Your task to perform on an android device: change text size in settings app Image 0: 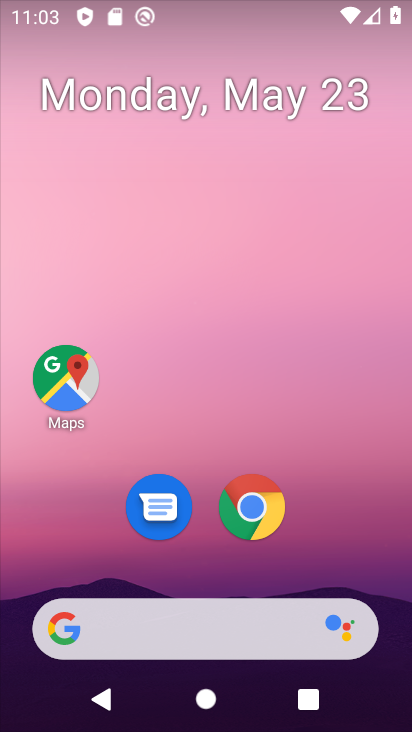
Step 0: drag from (342, 548) to (325, 188)
Your task to perform on an android device: change text size in settings app Image 1: 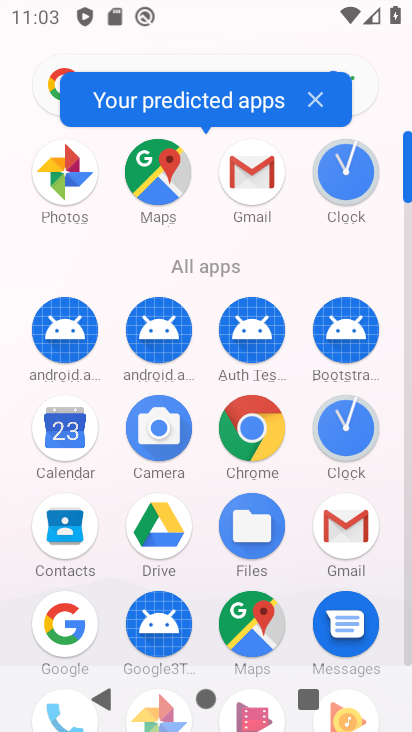
Step 1: drag from (270, 568) to (314, 140)
Your task to perform on an android device: change text size in settings app Image 2: 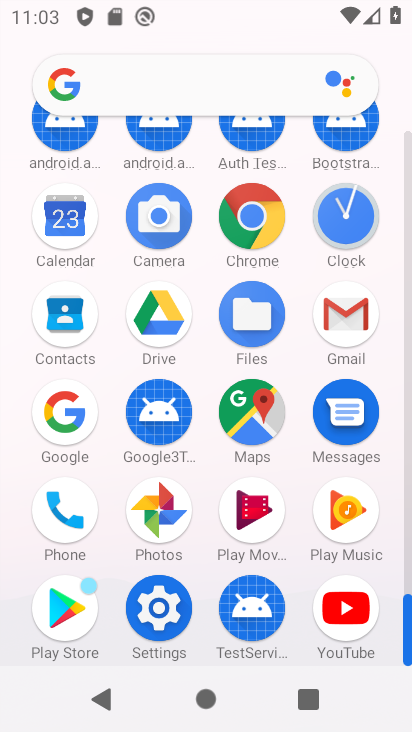
Step 2: drag from (229, 486) to (289, 211)
Your task to perform on an android device: change text size in settings app Image 3: 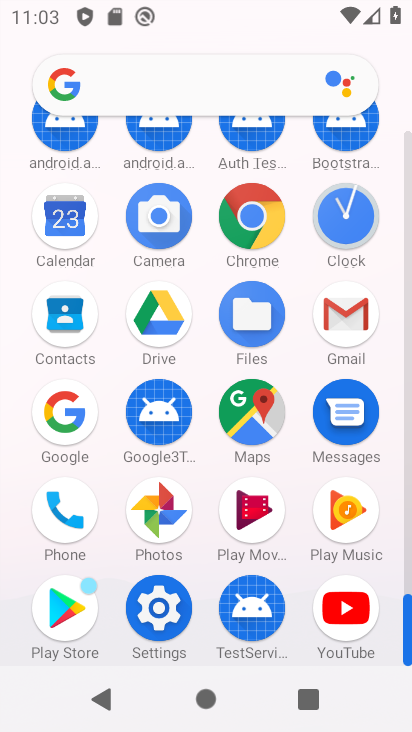
Step 3: click (153, 601)
Your task to perform on an android device: change text size in settings app Image 4: 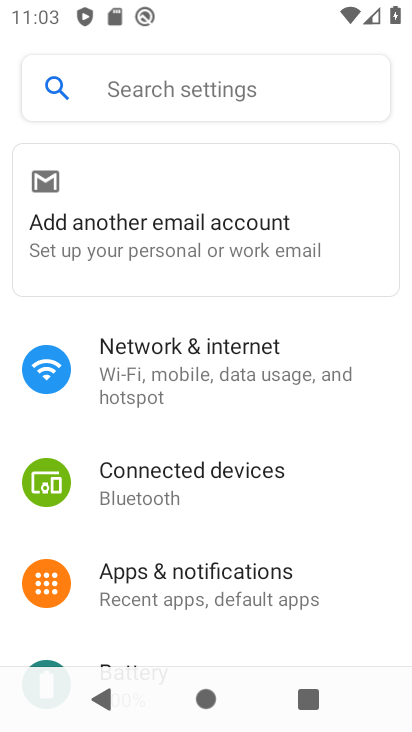
Step 4: drag from (239, 550) to (284, 212)
Your task to perform on an android device: change text size in settings app Image 5: 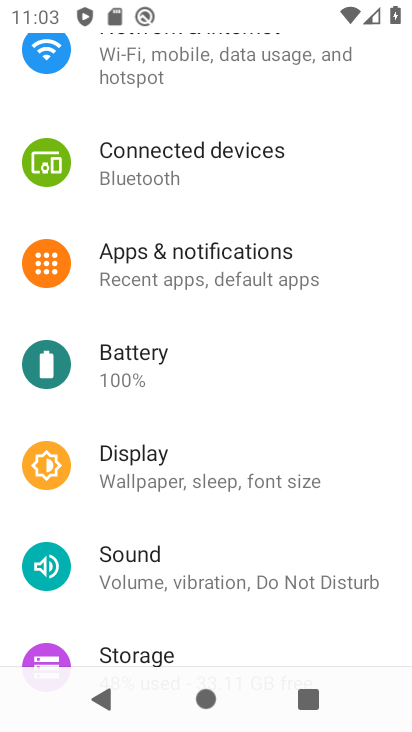
Step 5: drag from (256, 591) to (325, 232)
Your task to perform on an android device: change text size in settings app Image 6: 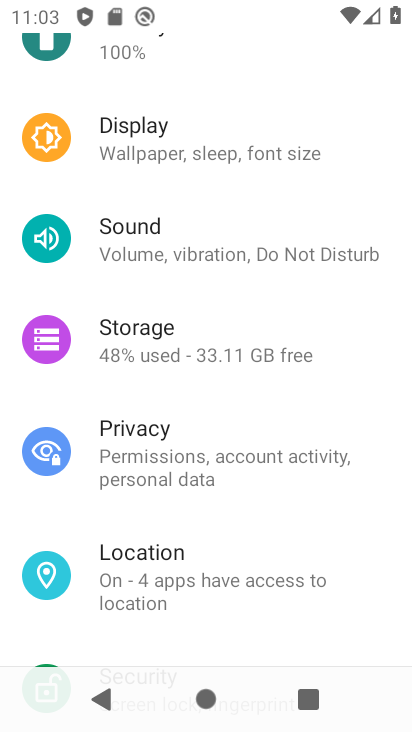
Step 6: drag from (269, 527) to (319, 189)
Your task to perform on an android device: change text size in settings app Image 7: 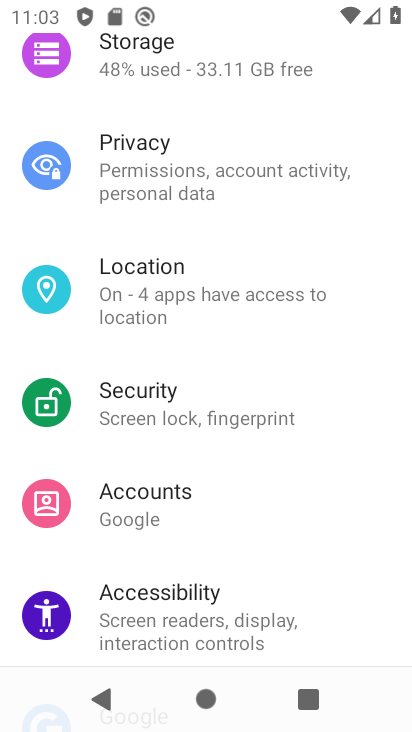
Step 7: drag from (229, 580) to (304, 246)
Your task to perform on an android device: change text size in settings app Image 8: 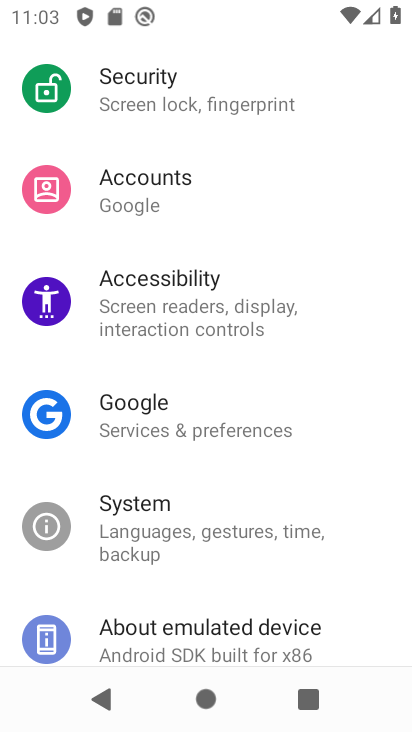
Step 8: drag from (198, 596) to (225, 441)
Your task to perform on an android device: change text size in settings app Image 9: 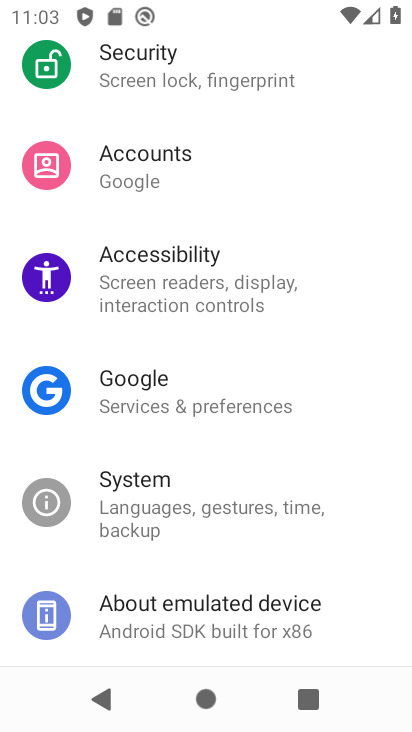
Step 9: click (171, 498)
Your task to perform on an android device: change text size in settings app Image 10: 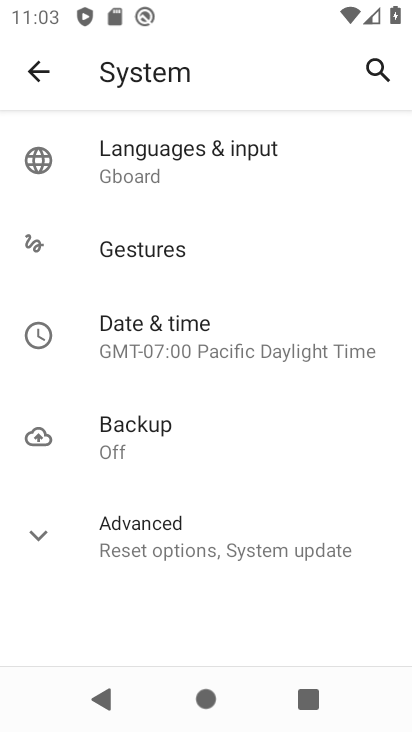
Step 10: press back button
Your task to perform on an android device: change text size in settings app Image 11: 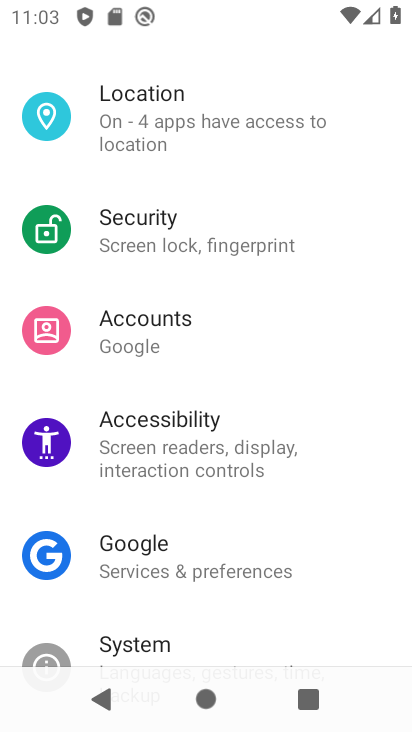
Step 11: click (151, 430)
Your task to perform on an android device: change text size in settings app Image 12: 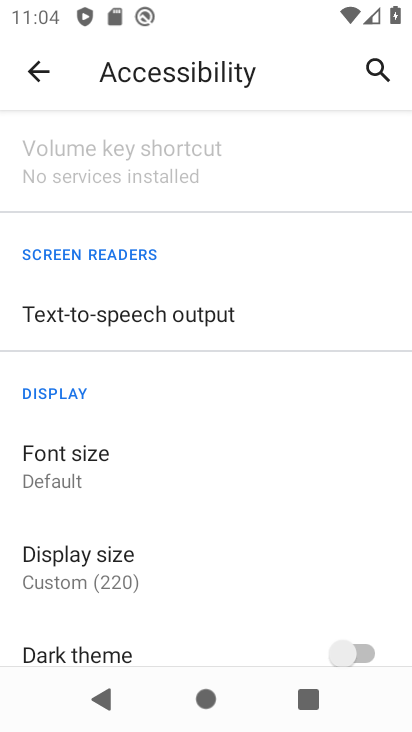
Step 12: press back button
Your task to perform on an android device: change text size in settings app Image 13: 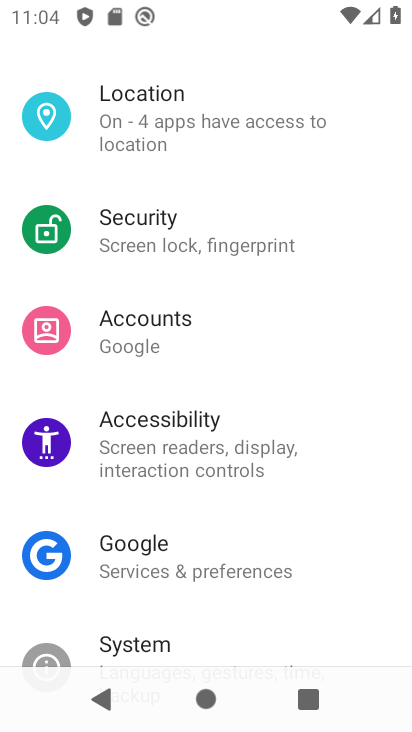
Step 13: drag from (148, 558) to (185, 394)
Your task to perform on an android device: change text size in settings app Image 14: 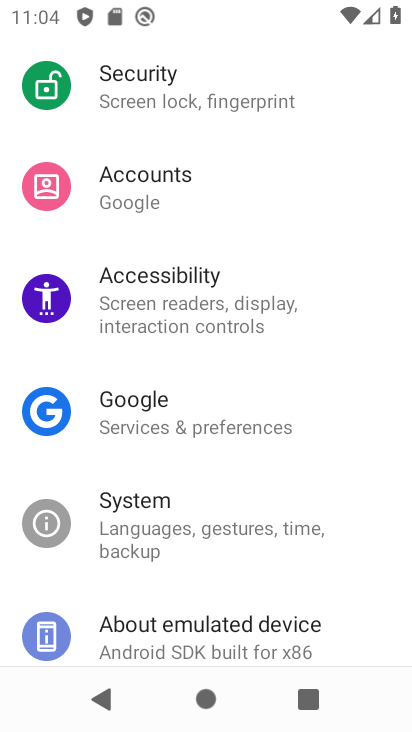
Step 14: click (139, 502)
Your task to perform on an android device: change text size in settings app Image 15: 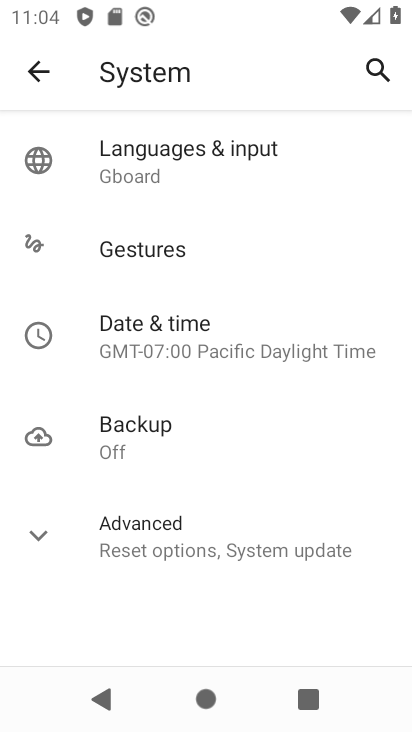
Step 15: press back button
Your task to perform on an android device: change text size in settings app Image 16: 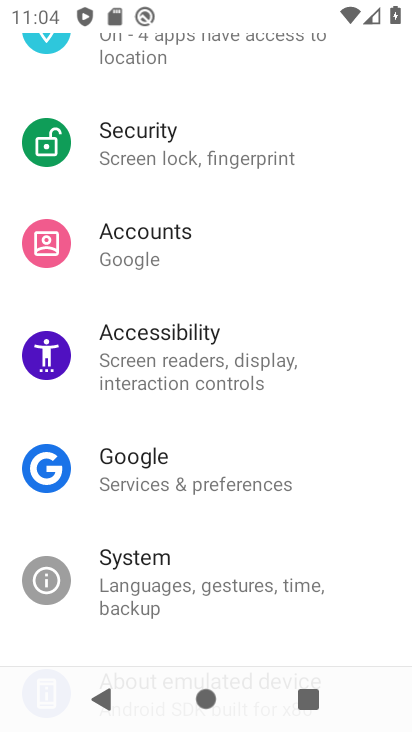
Step 16: drag from (229, 630) to (287, 439)
Your task to perform on an android device: change text size in settings app Image 17: 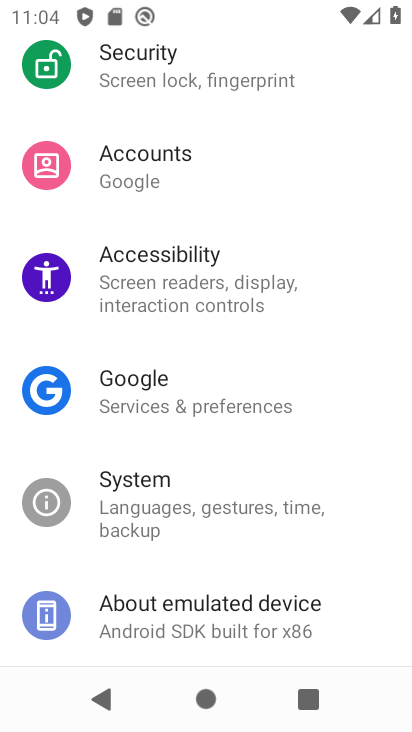
Step 17: click (189, 251)
Your task to perform on an android device: change text size in settings app Image 18: 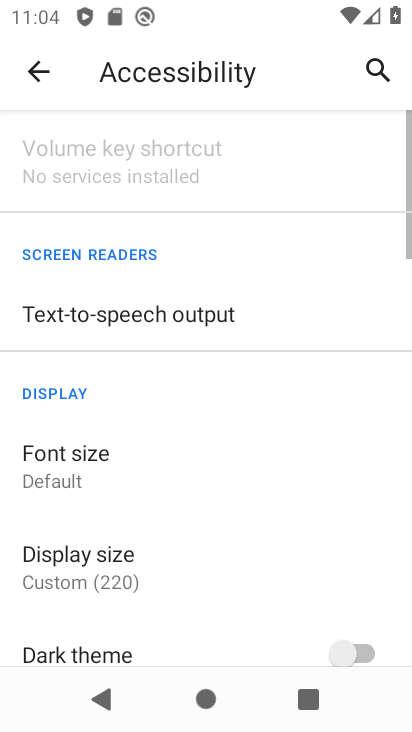
Step 18: click (142, 459)
Your task to perform on an android device: change text size in settings app Image 19: 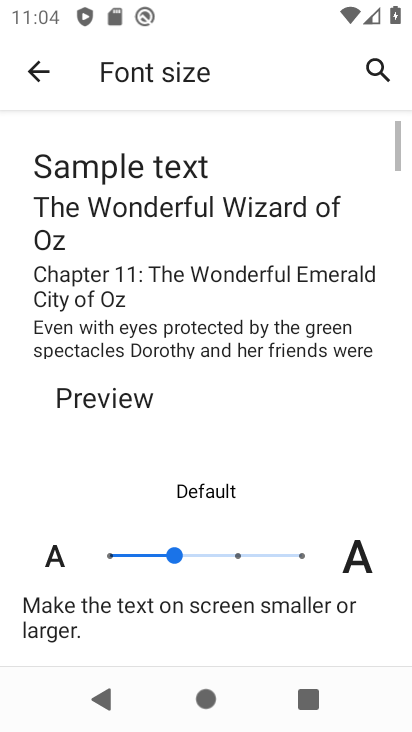
Step 19: click (227, 551)
Your task to perform on an android device: change text size in settings app Image 20: 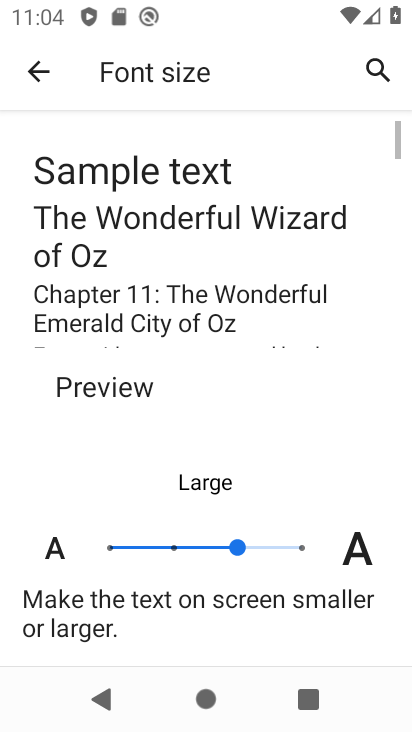
Step 20: task complete